Your task to perform on an android device: Open network settings Image 0: 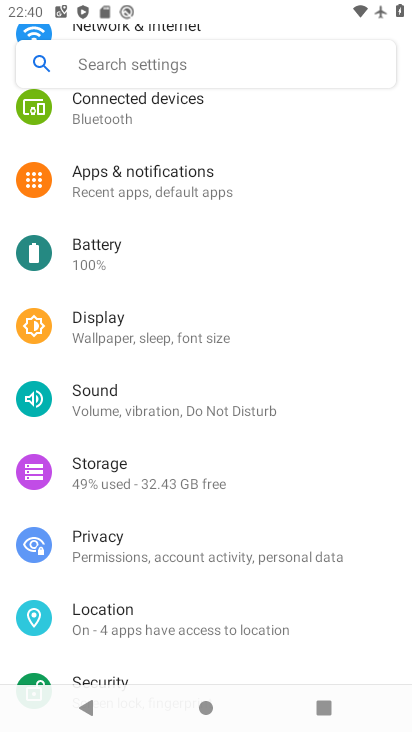
Step 0: drag from (197, 136) to (211, 414)
Your task to perform on an android device: Open network settings Image 1: 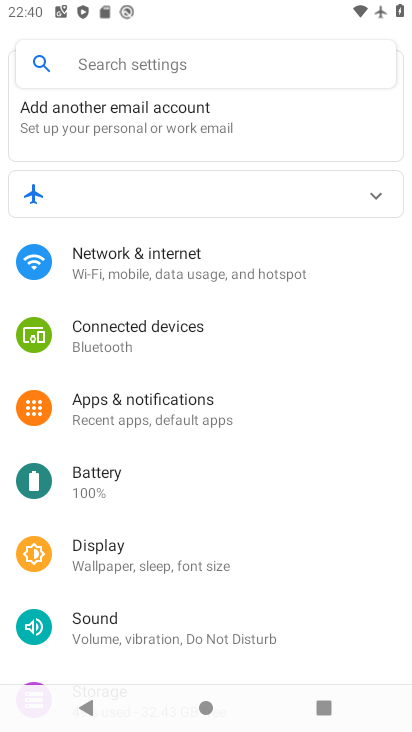
Step 1: click (173, 248)
Your task to perform on an android device: Open network settings Image 2: 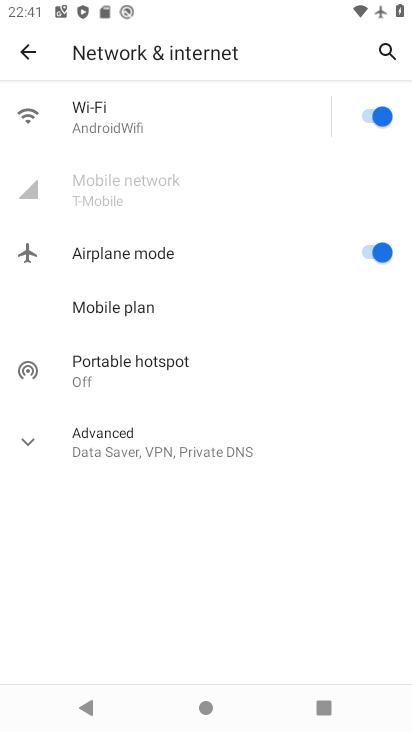
Step 2: task complete